Your task to perform on an android device: set the timer Image 0: 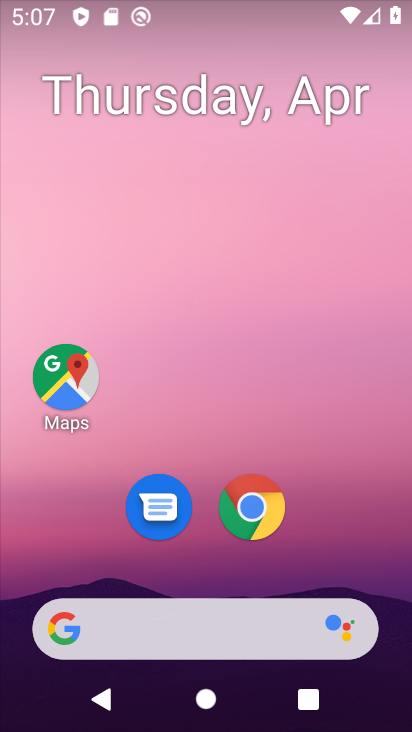
Step 0: click (233, 517)
Your task to perform on an android device: set the timer Image 1: 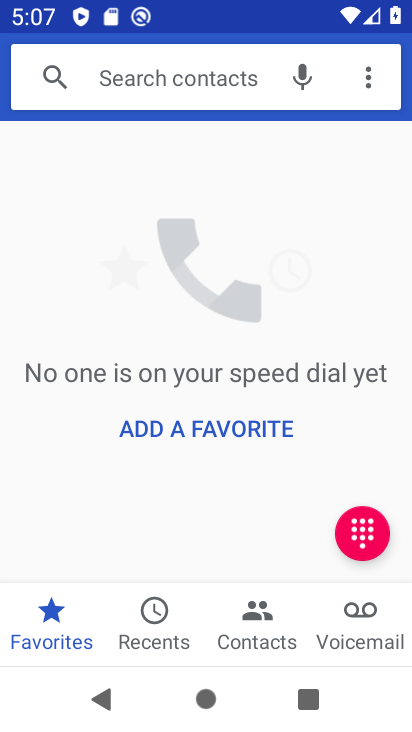
Step 1: press back button
Your task to perform on an android device: set the timer Image 2: 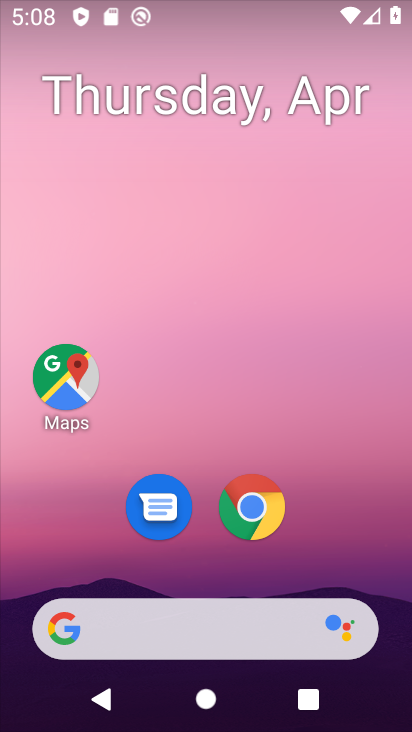
Step 2: drag from (353, 523) to (340, 146)
Your task to perform on an android device: set the timer Image 3: 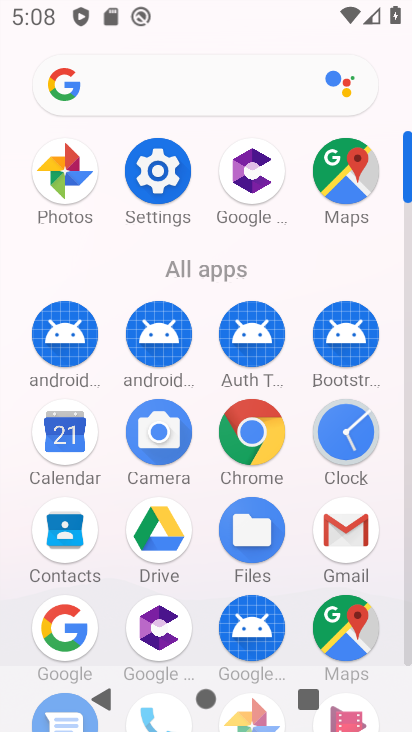
Step 3: click (347, 431)
Your task to perform on an android device: set the timer Image 4: 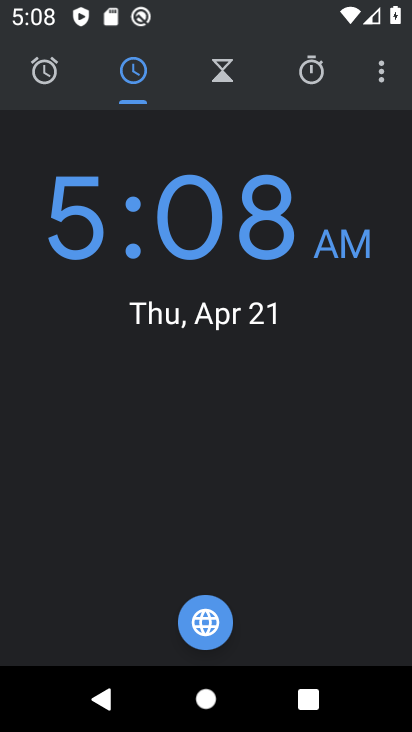
Step 4: click (229, 66)
Your task to perform on an android device: set the timer Image 5: 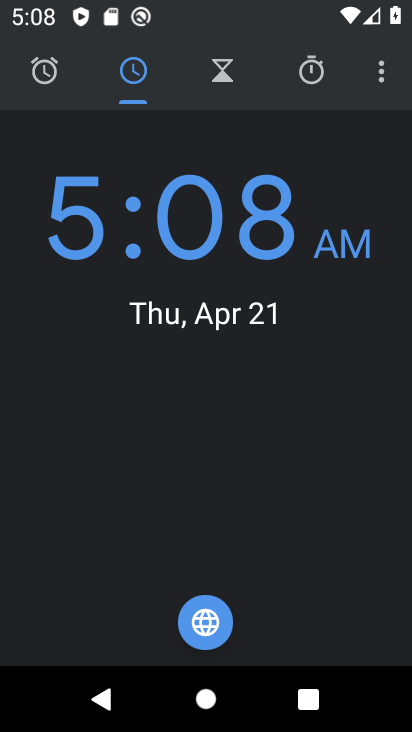
Step 5: click (227, 73)
Your task to perform on an android device: set the timer Image 6: 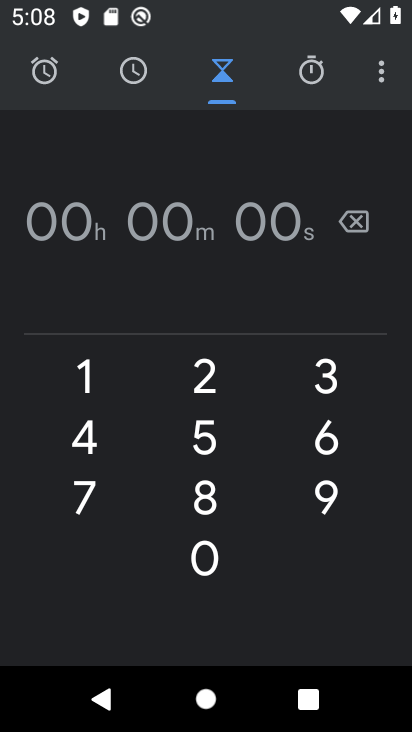
Step 6: click (193, 377)
Your task to perform on an android device: set the timer Image 7: 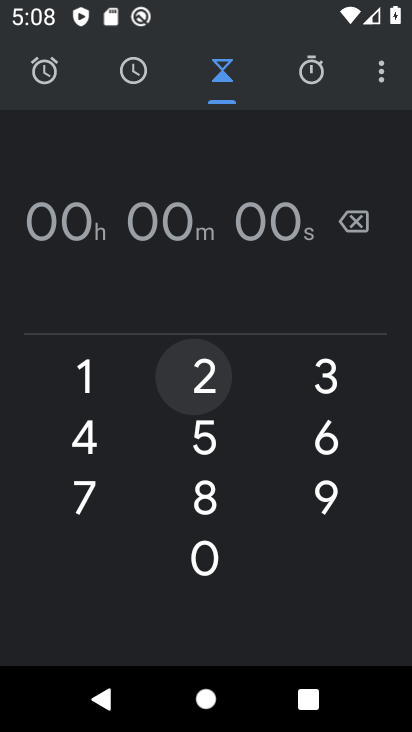
Step 7: click (202, 553)
Your task to perform on an android device: set the timer Image 8: 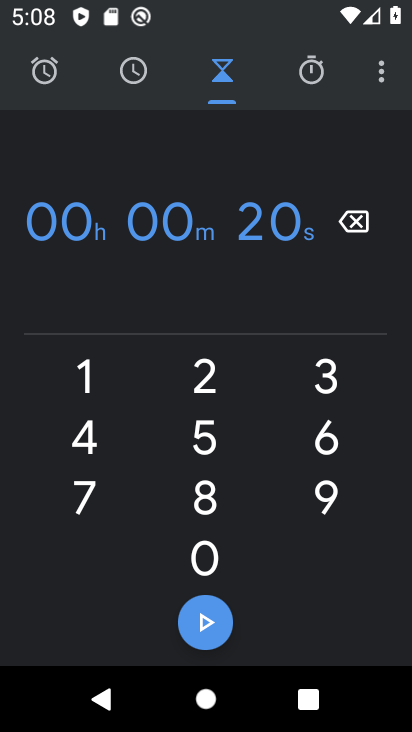
Step 8: click (203, 389)
Your task to perform on an android device: set the timer Image 9: 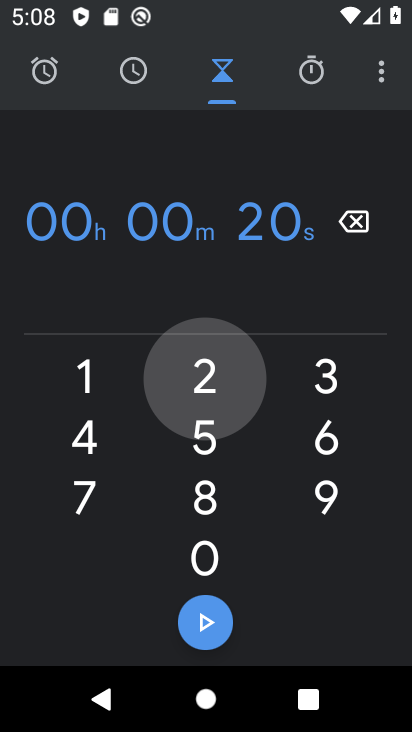
Step 9: click (205, 647)
Your task to perform on an android device: set the timer Image 10: 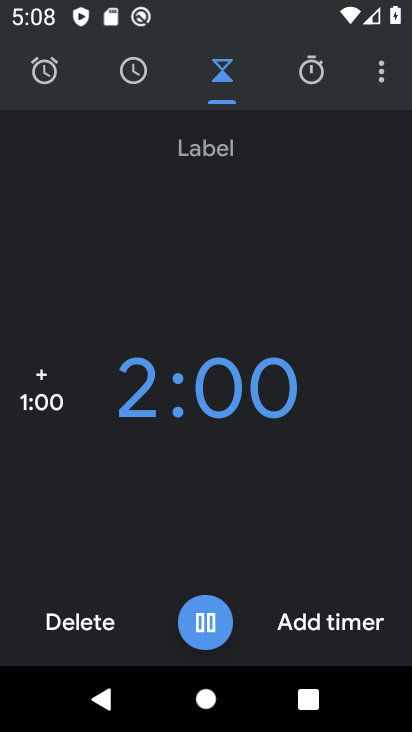
Step 10: click (361, 622)
Your task to perform on an android device: set the timer Image 11: 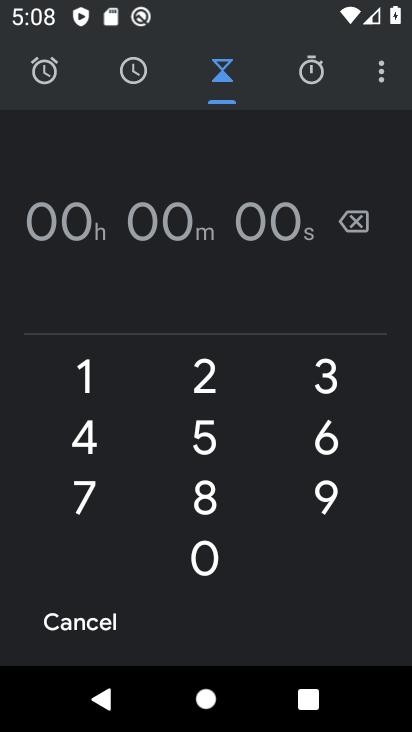
Step 11: task complete